Your task to perform on an android device: Do I have any events tomorrow? Image 0: 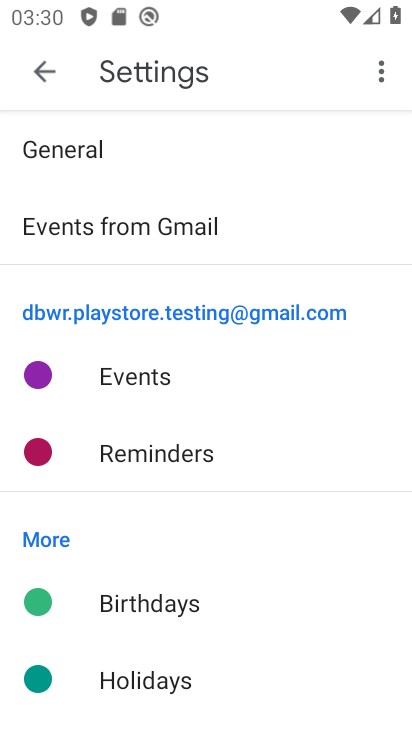
Step 0: press home button
Your task to perform on an android device: Do I have any events tomorrow? Image 1: 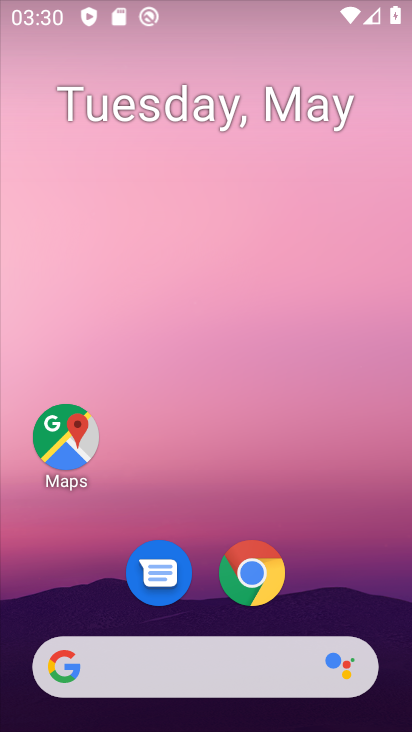
Step 1: drag from (211, 502) to (316, 44)
Your task to perform on an android device: Do I have any events tomorrow? Image 2: 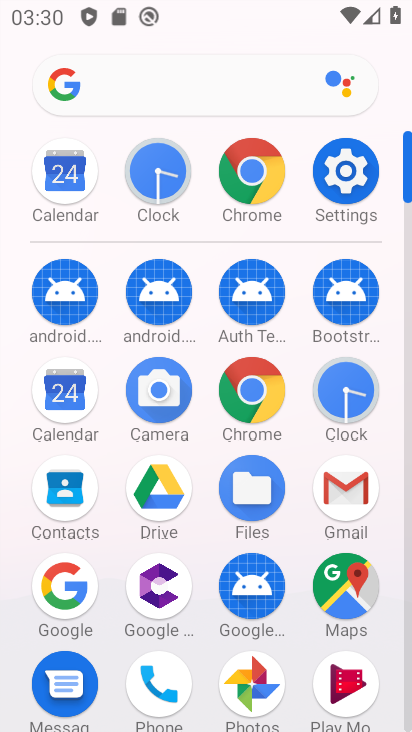
Step 2: click (359, 367)
Your task to perform on an android device: Do I have any events tomorrow? Image 3: 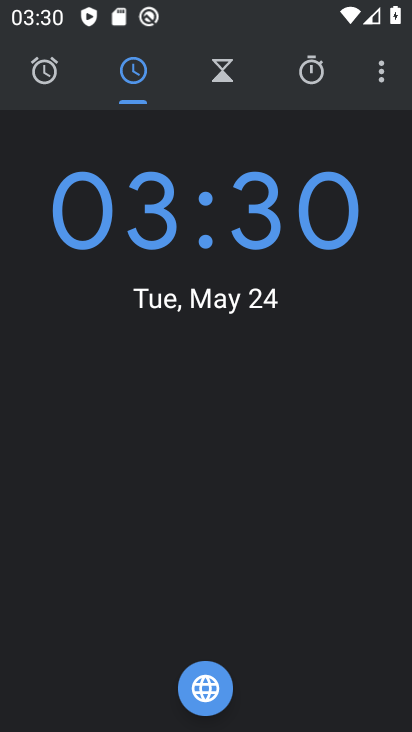
Step 3: press back button
Your task to perform on an android device: Do I have any events tomorrow? Image 4: 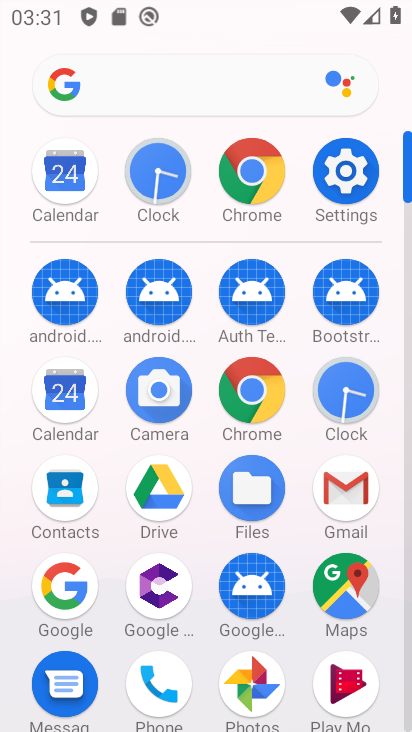
Step 4: click (59, 395)
Your task to perform on an android device: Do I have any events tomorrow? Image 5: 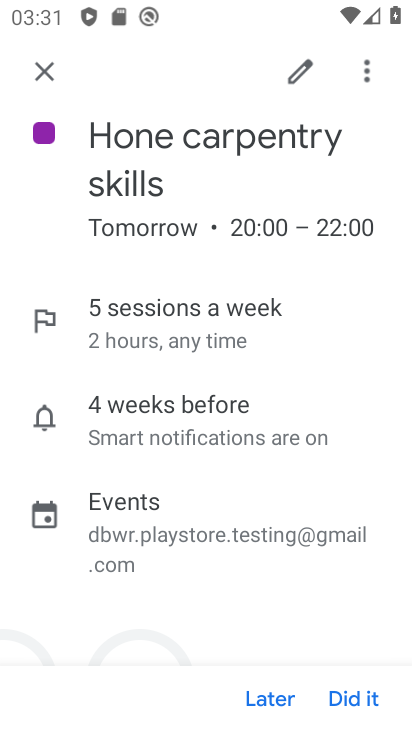
Step 5: click (54, 70)
Your task to perform on an android device: Do I have any events tomorrow? Image 6: 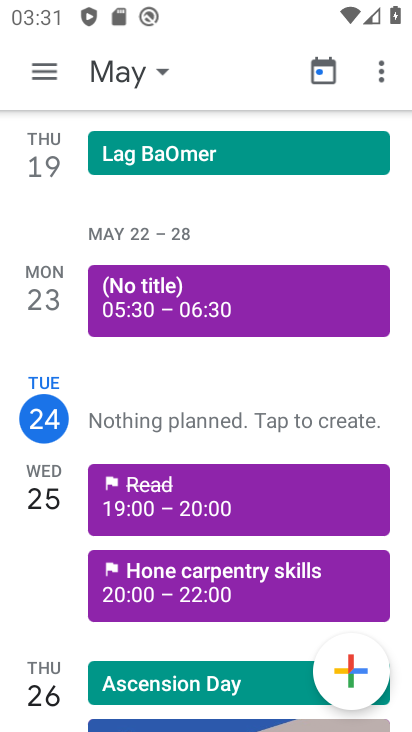
Step 6: click (151, 608)
Your task to perform on an android device: Do I have any events tomorrow? Image 7: 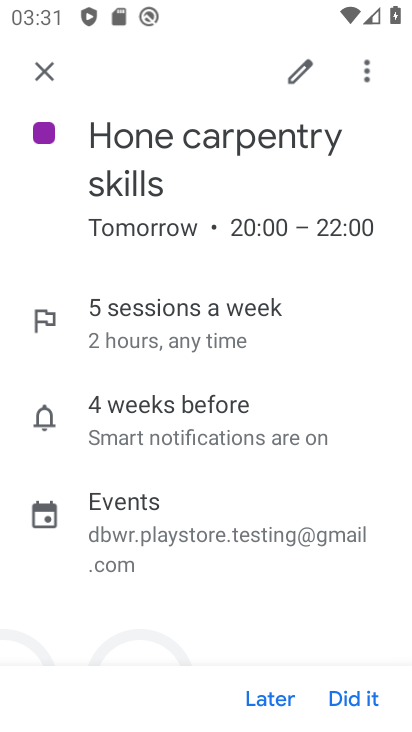
Step 7: task complete